Your task to perform on an android device: What is the recent news? Image 0: 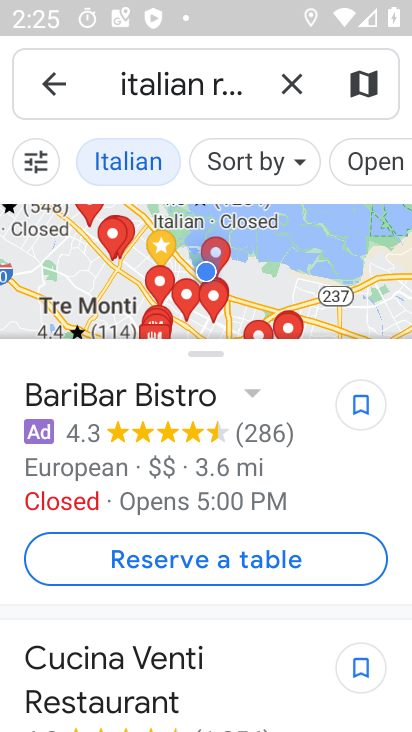
Step 0: press home button
Your task to perform on an android device: What is the recent news? Image 1: 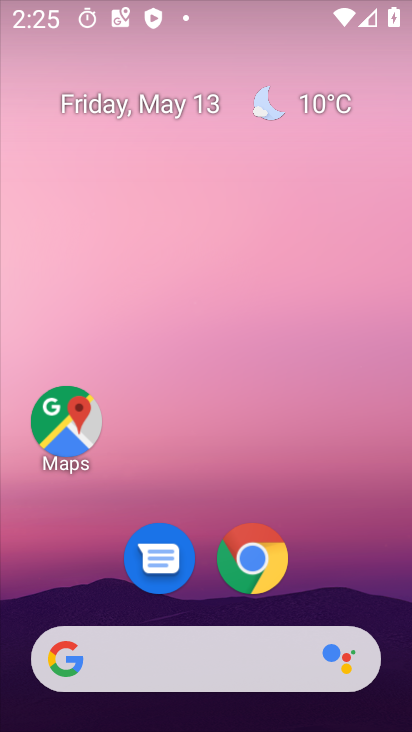
Step 1: drag from (197, 595) to (267, 163)
Your task to perform on an android device: What is the recent news? Image 2: 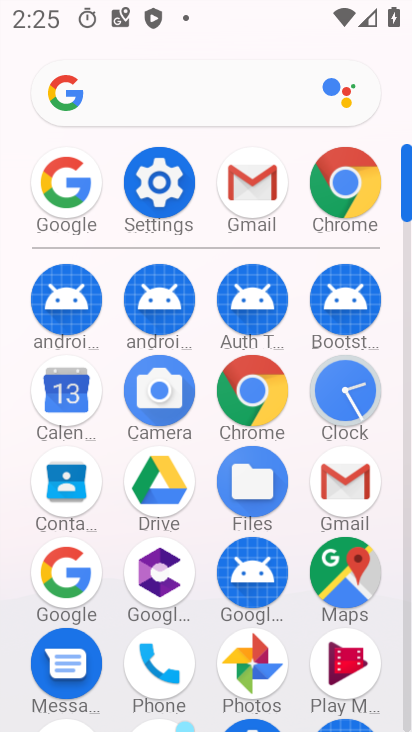
Step 2: click (65, 210)
Your task to perform on an android device: What is the recent news? Image 3: 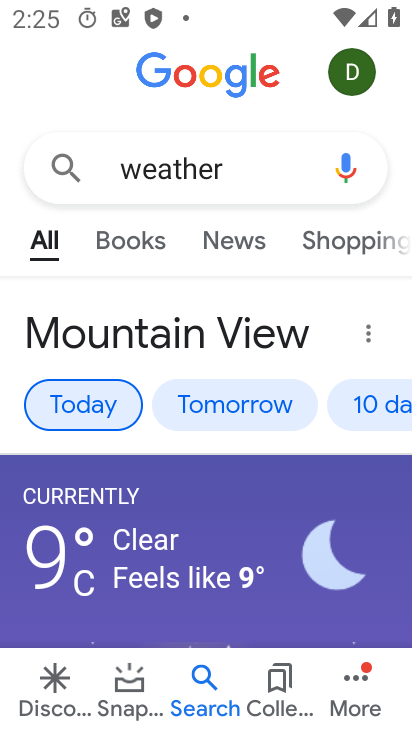
Step 3: click (250, 182)
Your task to perform on an android device: What is the recent news? Image 4: 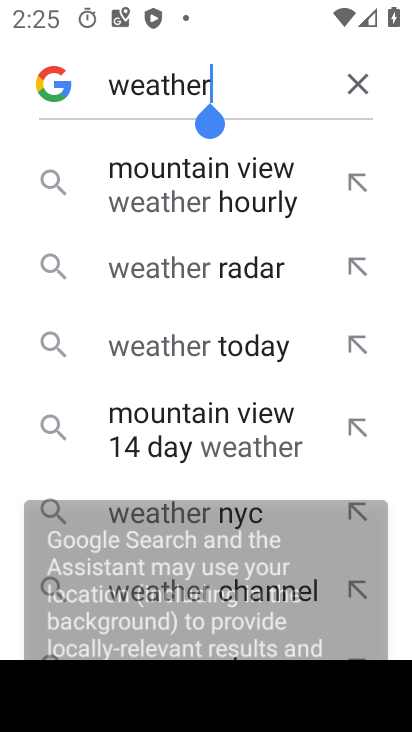
Step 4: click (359, 80)
Your task to perform on an android device: What is the recent news? Image 5: 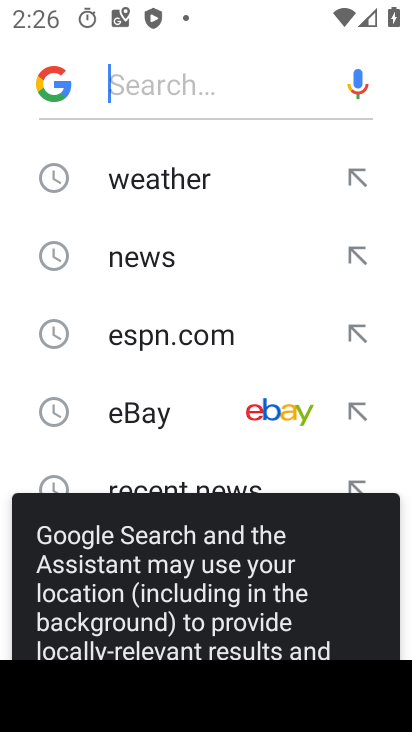
Step 5: click (216, 84)
Your task to perform on an android device: What is the recent news? Image 6: 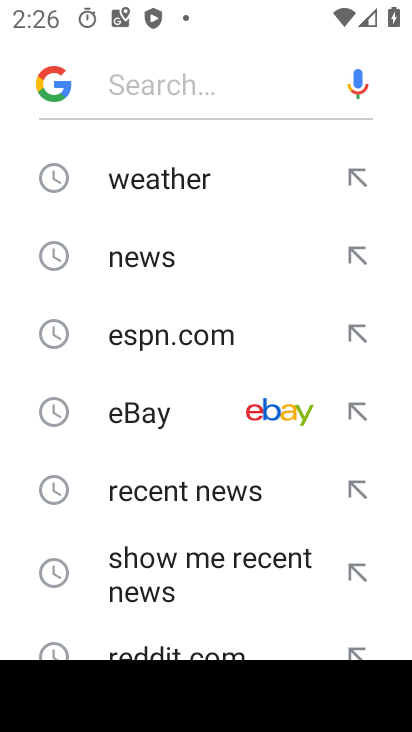
Step 6: type "recent news"
Your task to perform on an android device: What is the recent news? Image 7: 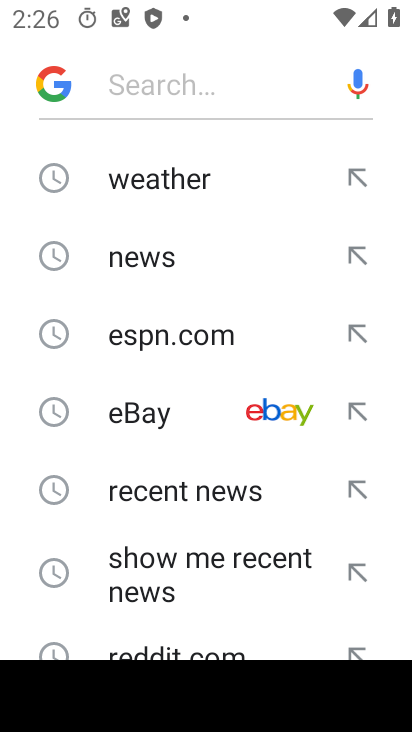
Step 7: click (166, 442)
Your task to perform on an android device: What is the recent news? Image 8: 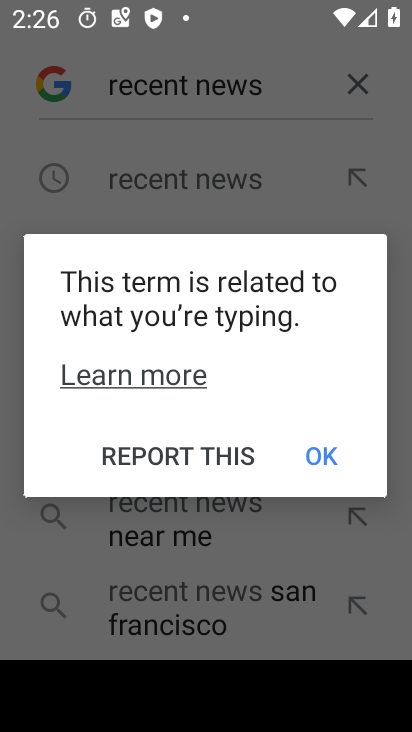
Step 8: click (330, 442)
Your task to perform on an android device: What is the recent news? Image 9: 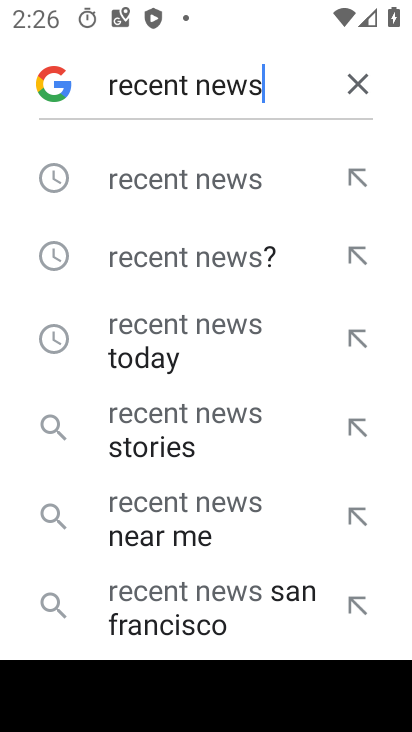
Step 9: click (252, 190)
Your task to perform on an android device: What is the recent news? Image 10: 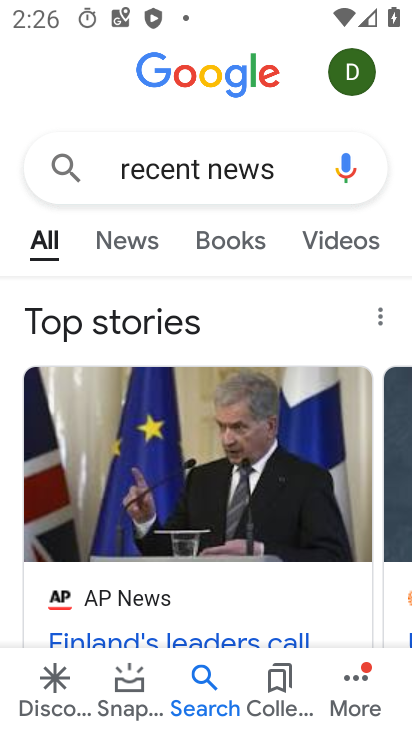
Step 10: click (108, 249)
Your task to perform on an android device: What is the recent news? Image 11: 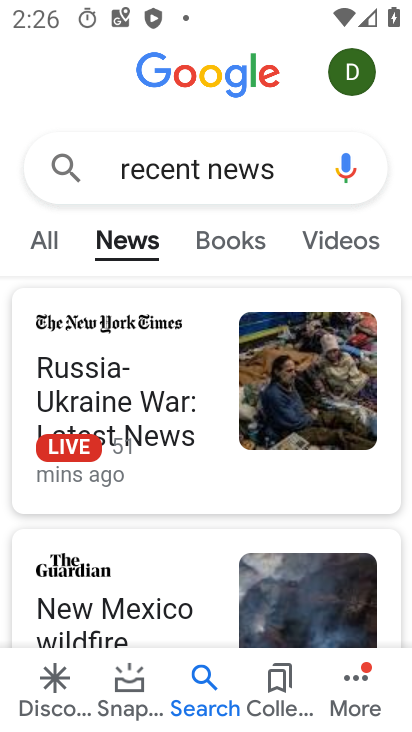
Step 11: task complete